Your task to perform on an android device: check storage Image 0: 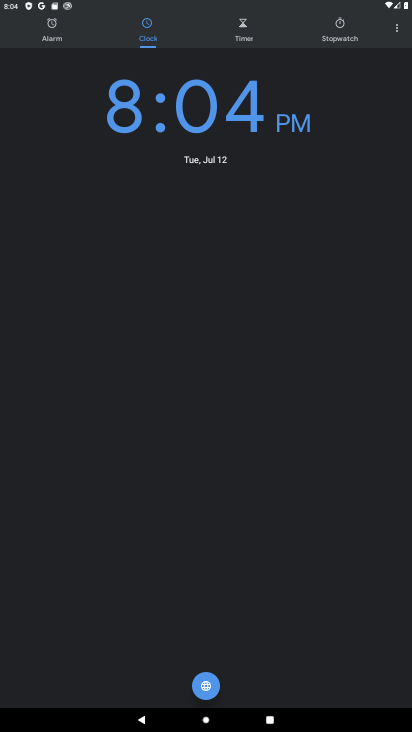
Step 0: task complete